Your task to perform on an android device: search for starred emails in the gmail app Image 0: 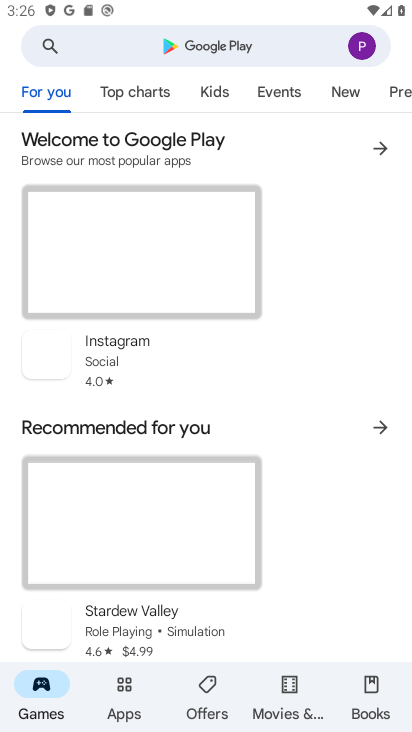
Step 0: press home button
Your task to perform on an android device: search for starred emails in the gmail app Image 1: 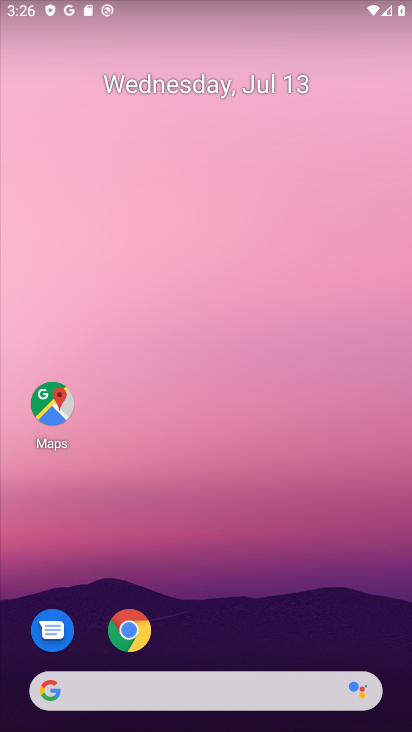
Step 1: drag from (189, 481) to (243, 32)
Your task to perform on an android device: search for starred emails in the gmail app Image 2: 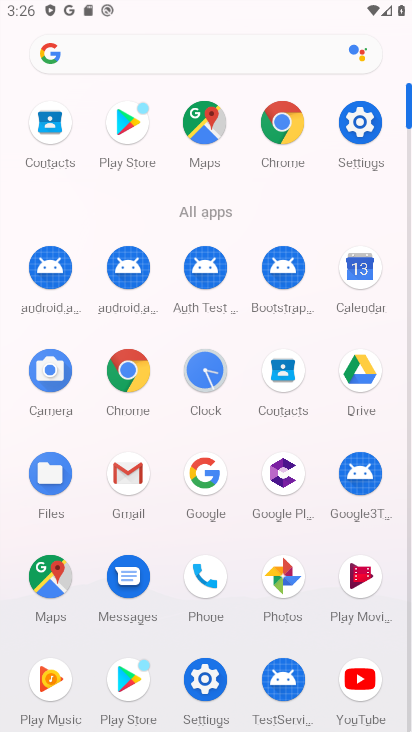
Step 2: click (130, 493)
Your task to perform on an android device: search for starred emails in the gmail app Image 3: 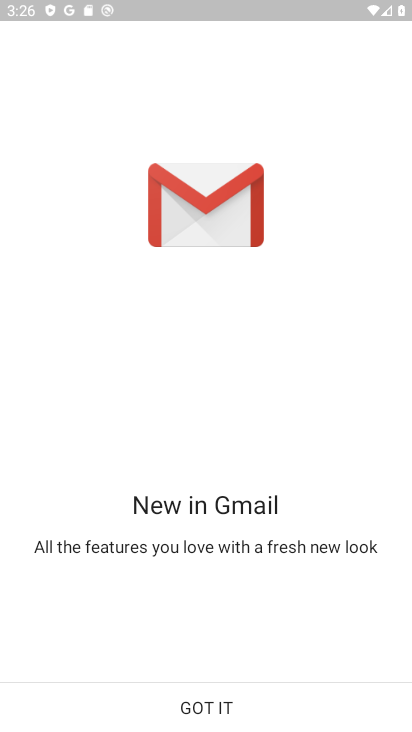
Step 3: click (189, 707)
Your task to perform on an android device: search for starred emails in the gmail app Image 4: 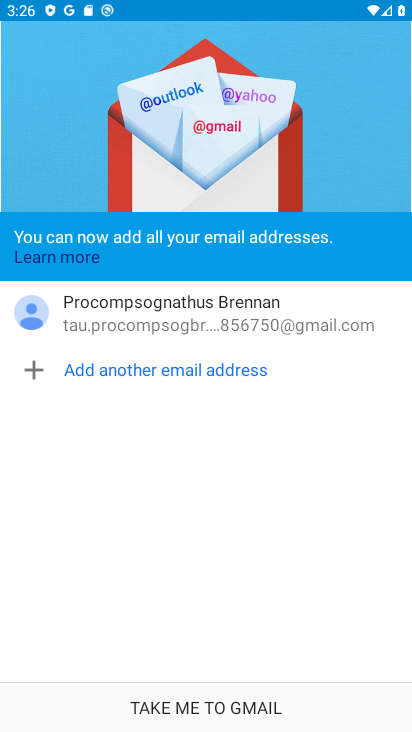
Step 4: click (208, 699)
Your task to perform on an android device: search for starred emails in the gmail app Image 5: 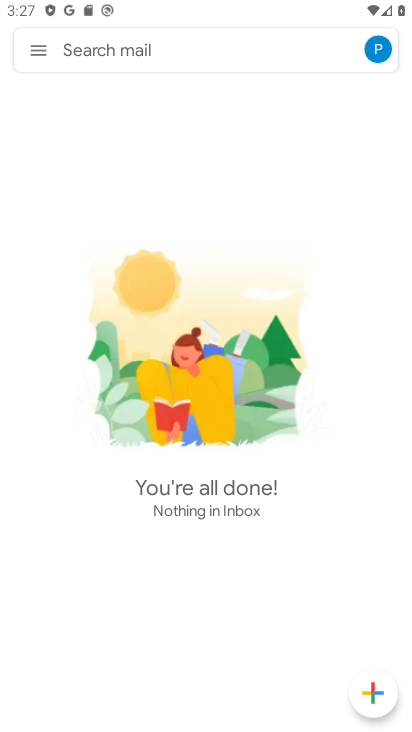
Step 5: click (40, 50)
Your task to perform on an android device: search for starred emails in the gmail app Image 6: 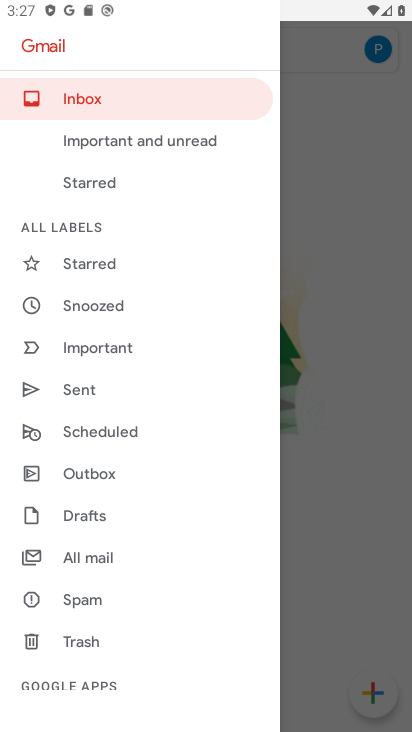
Step 6: click (88, 264)
Your task to perform on an android device: search for starred emails in the gmail app Image 7: 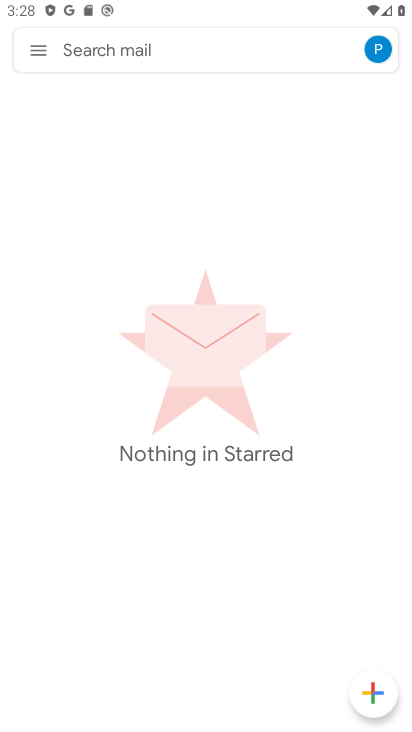
Step 7: task complete